Your task to perform on an android device: install app "Roku - Official Remote Control" Image 0: 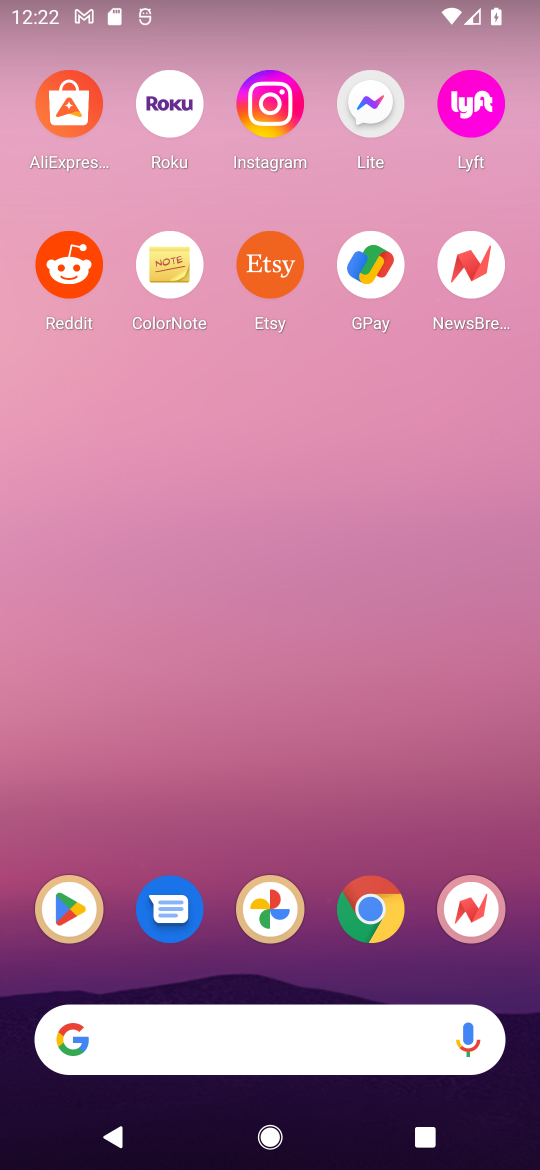
Step 0: click (51, 899)
Your task to perform on an android device: install app "Roku - Official Remote Control" Image 1: 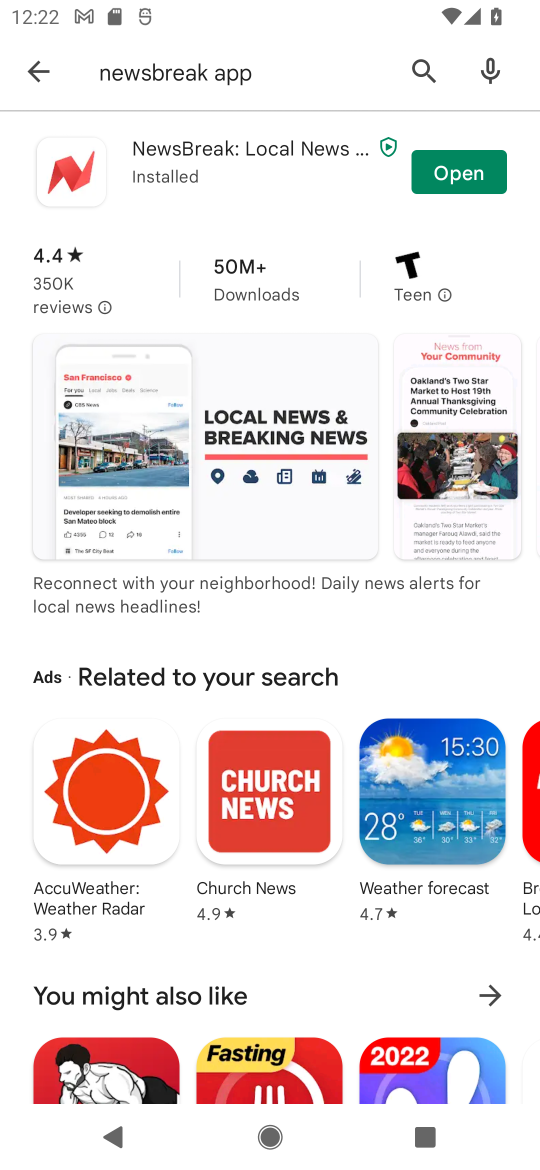
Step 1: click (423, 72)
Your task to perform on an android device: install app "Roku - Official Remote Control" Image 2: 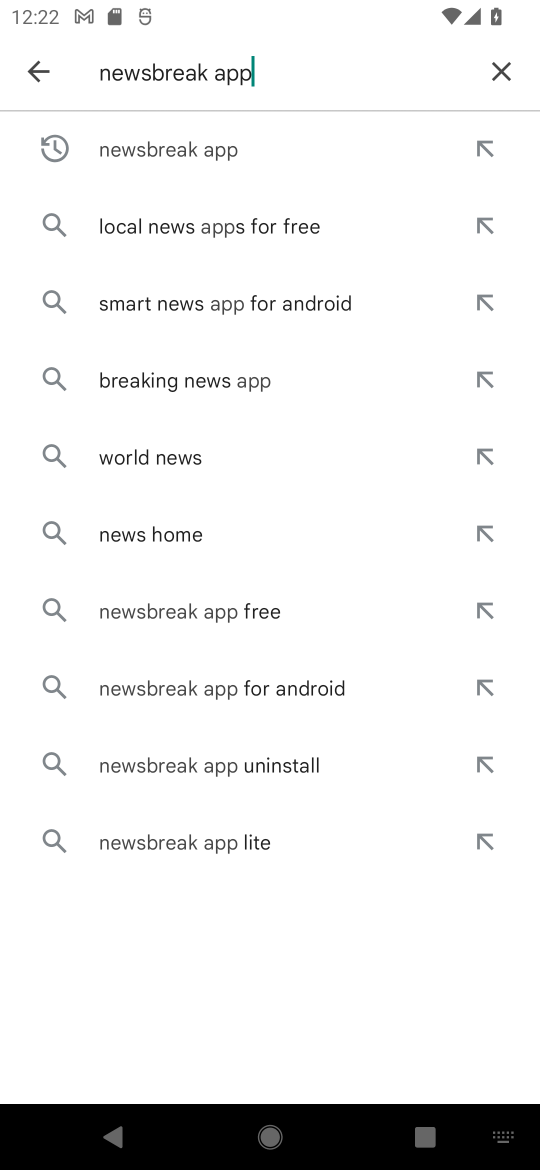
Step 2: click (509, 74)
Your task to perform on an android device: install app "Roku - Official Remote Control" Image 3: 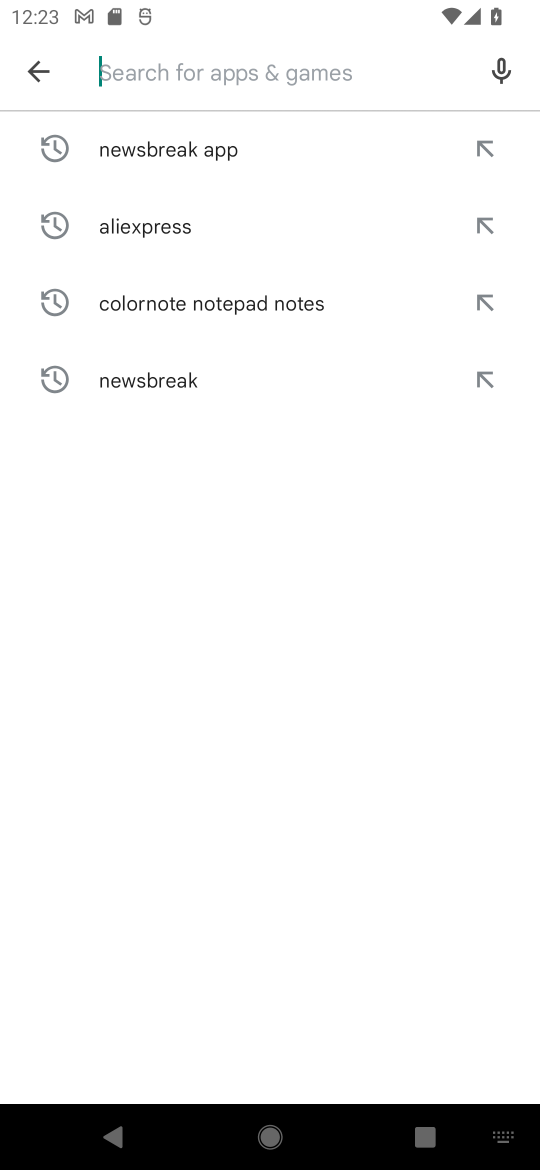
Step 3: type "Roku - Official Remote Control"
Your task to perform on an android device: install app "Roku - Official Remote Control" Image 4: 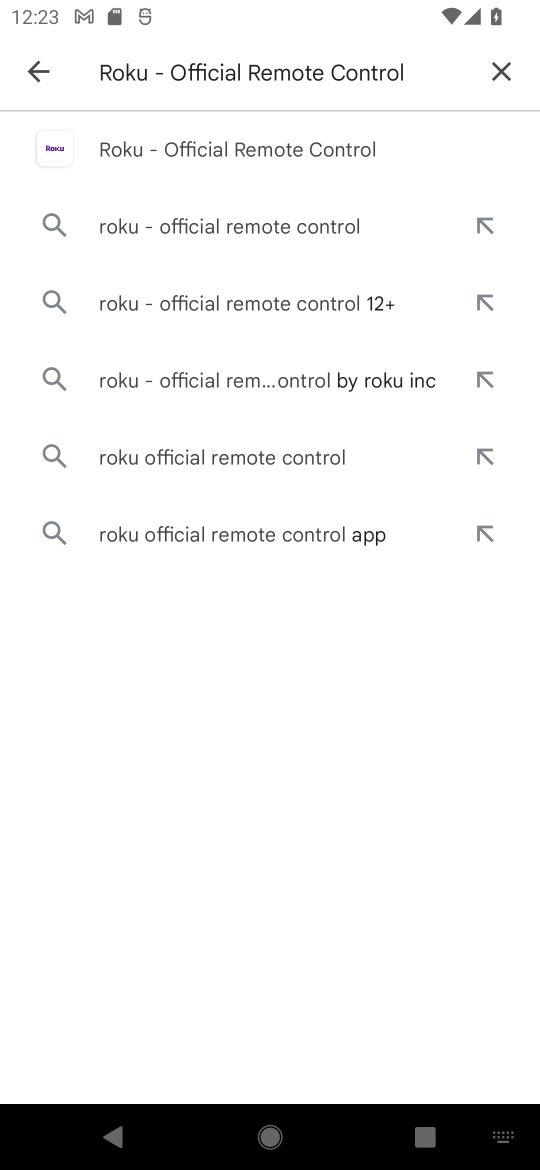
Step 4: click (263, 146)
Your task to perform on an android device: install app "Roku - Official Remote Control" Image 5: 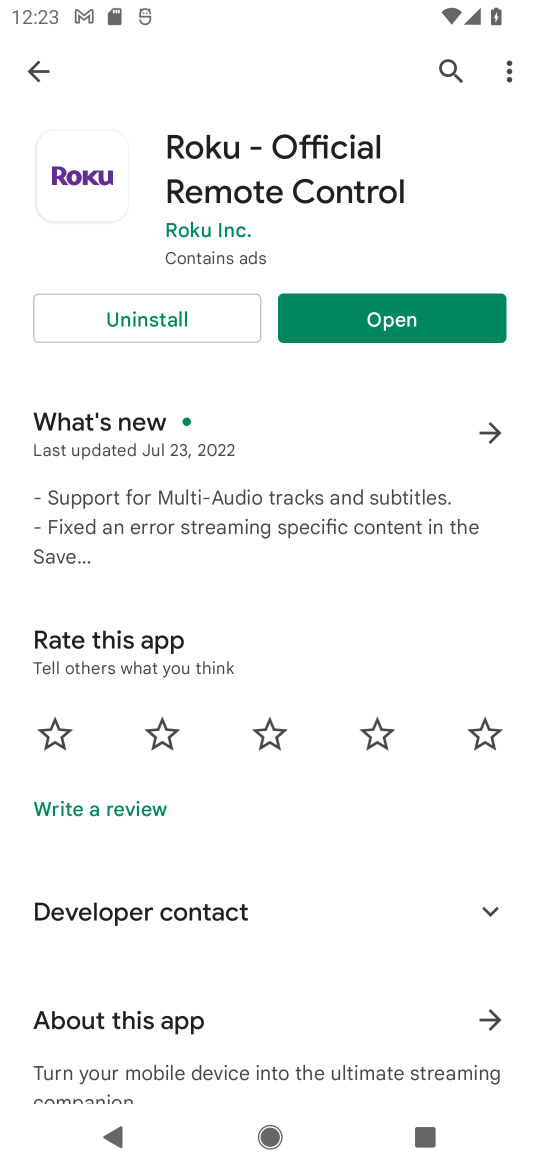
Step 5: task complete